Your task to perform on an android device: Open maps Image 0: 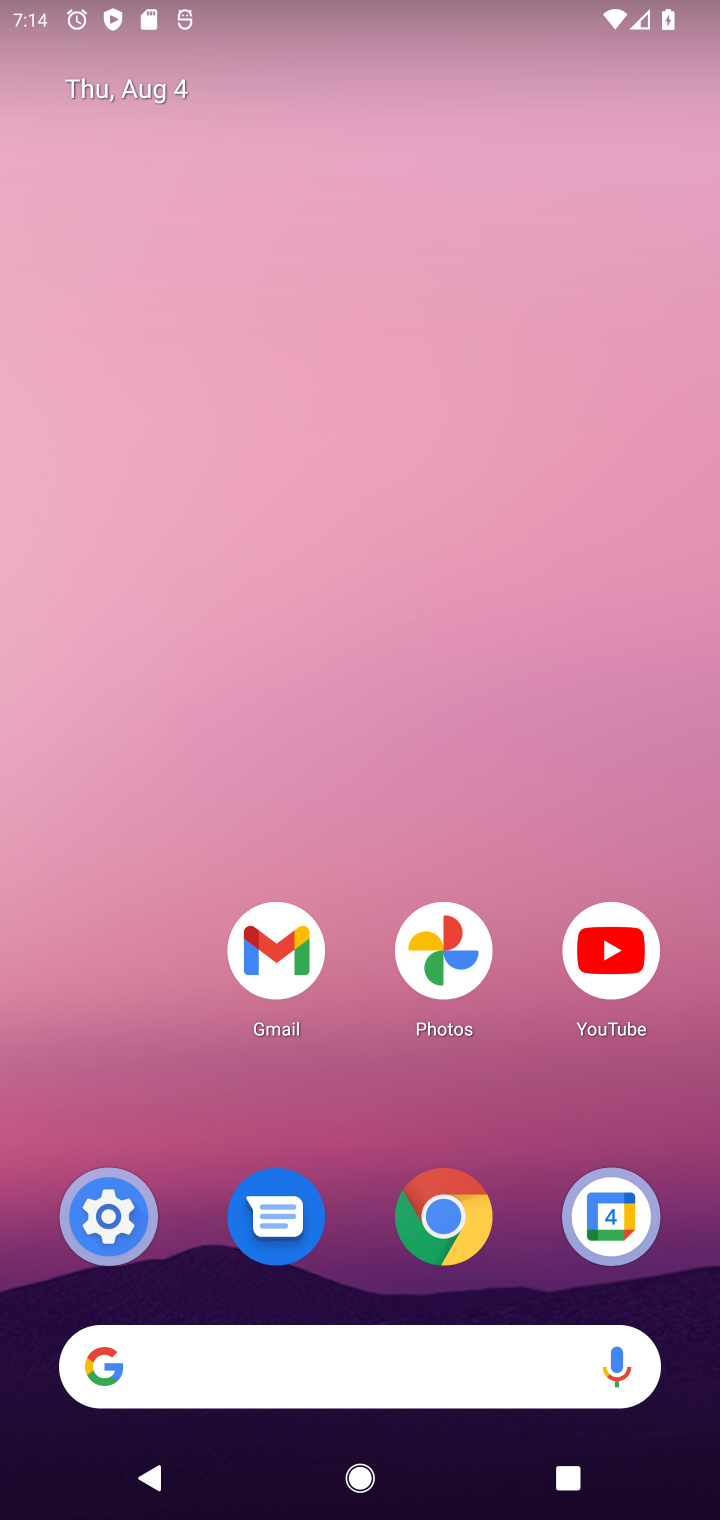
Step 0: drag from (555, 1161) to (479, 420)
Your task to perform on an android device: Open maps Image 1: 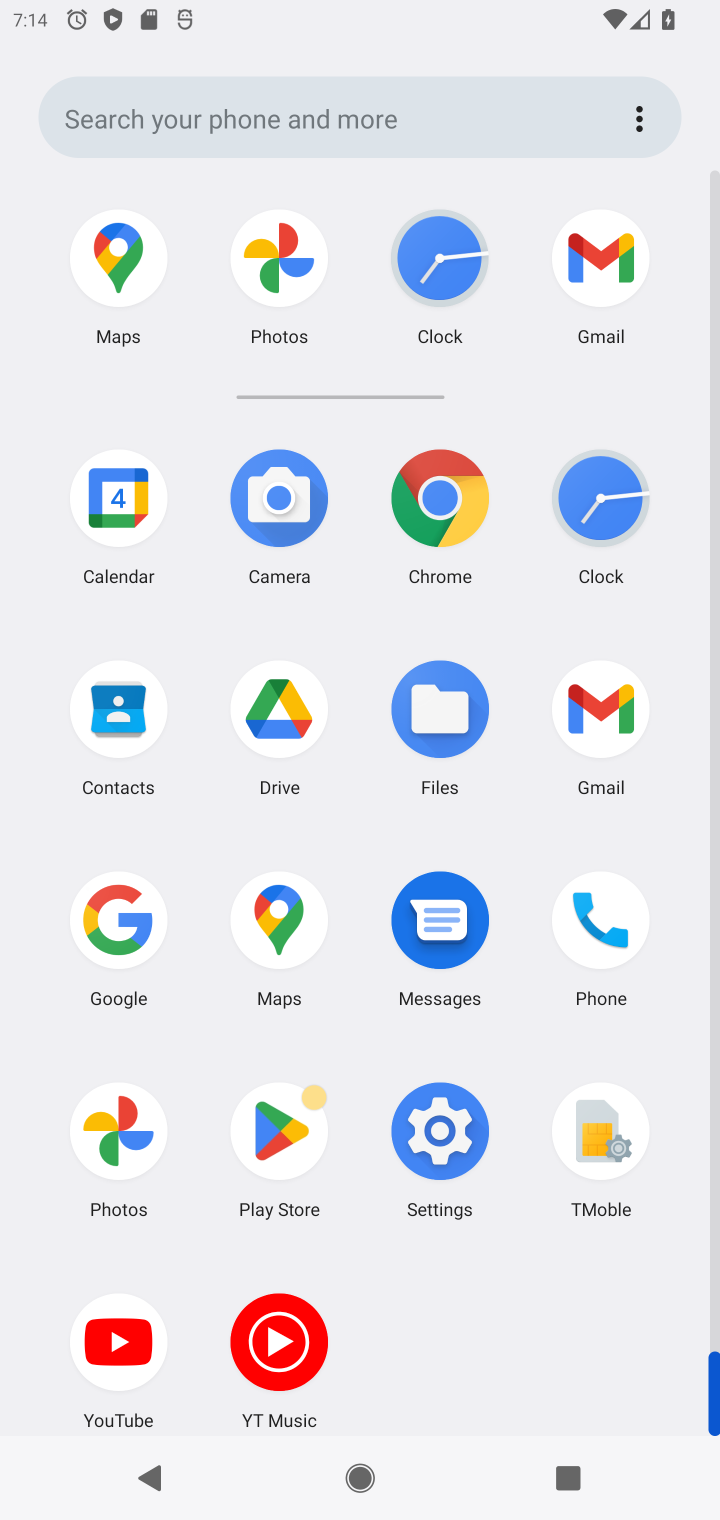
Step 1: click (114, 258)
Your task to perform on an android device: Open maps Image 2: 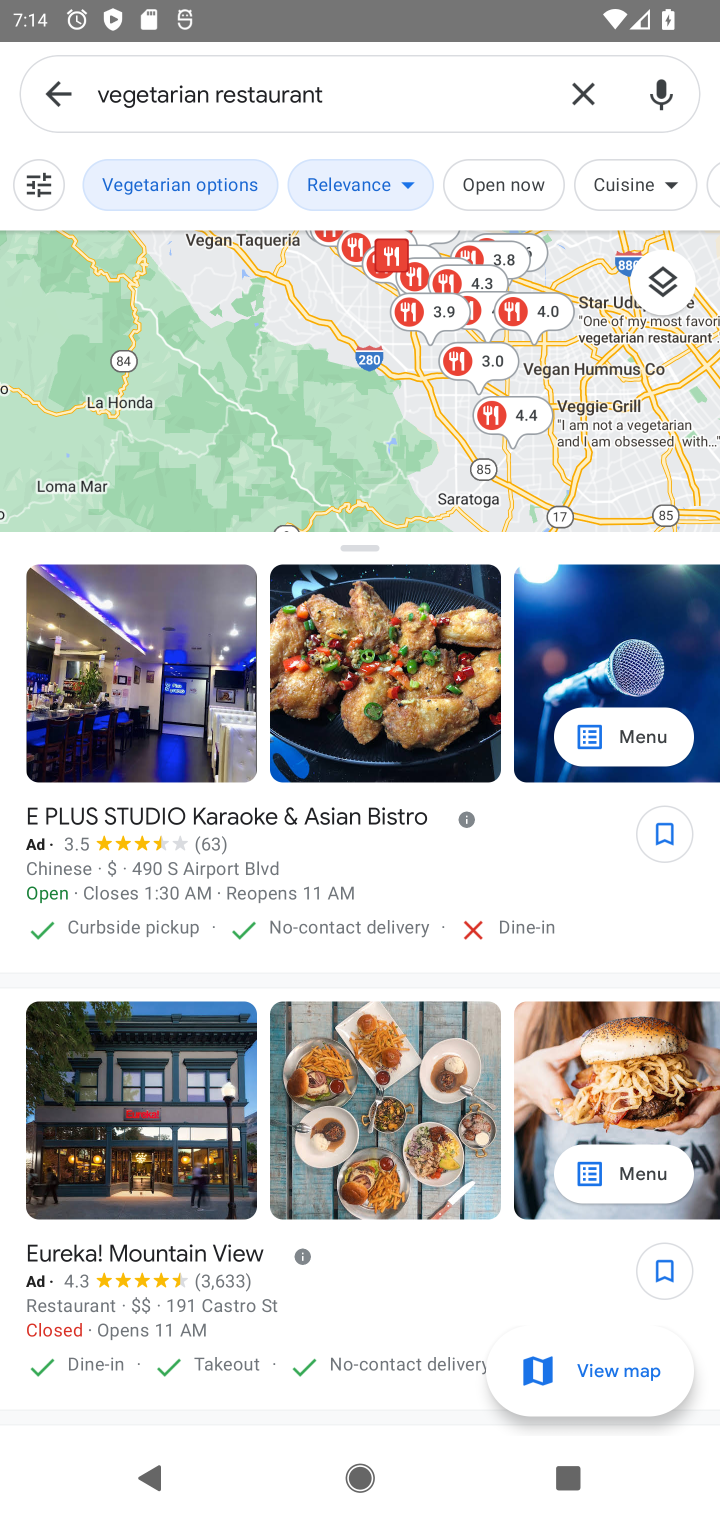
Step 2: task complete